Your task to perform on an android device: turn on translation in the chrome app Image 0: 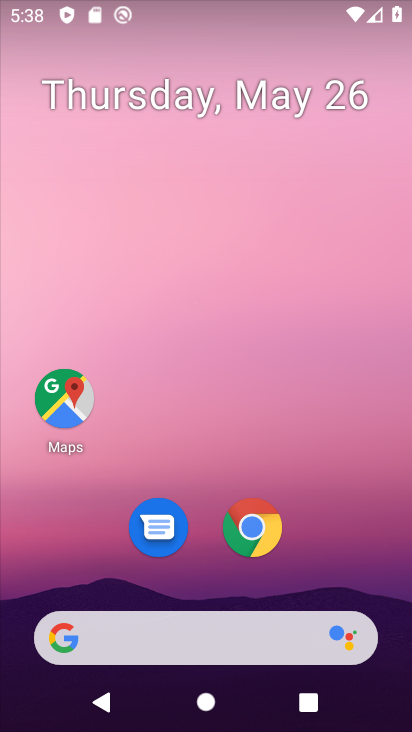
Step 0: click (210, 165)
Your task to perform on an android device: turn on translation in the chrome app Image 1: 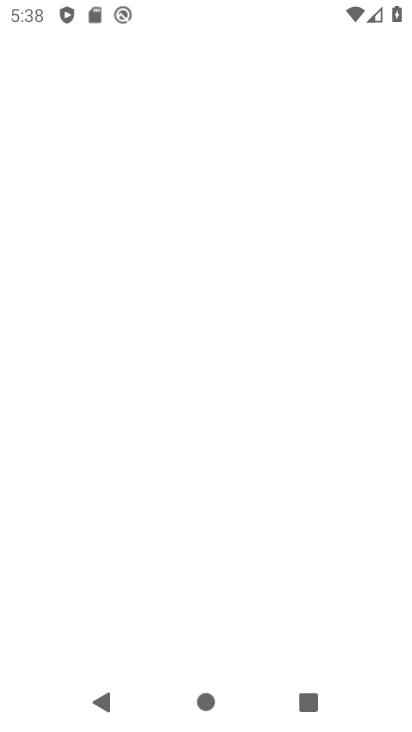
Step 1: press home button
Your task to perform on an android device: turn on translation in the chrome app Image 2: 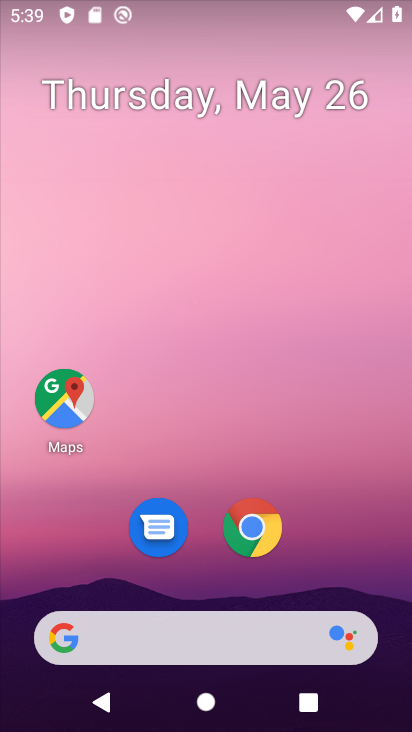
Step 2: click (264, 524)
Your task to perform on an android device: turn on translation in the chrome app Image 3: 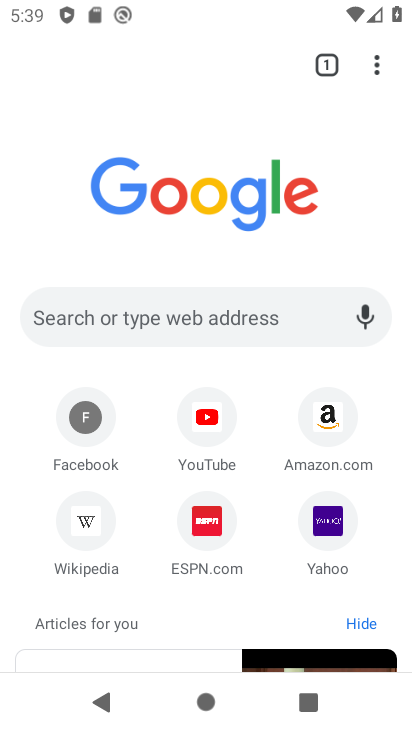
Step 3: click (383, 63)
Your task to perform on an android device: turn on translation in the chrome app Image 4: 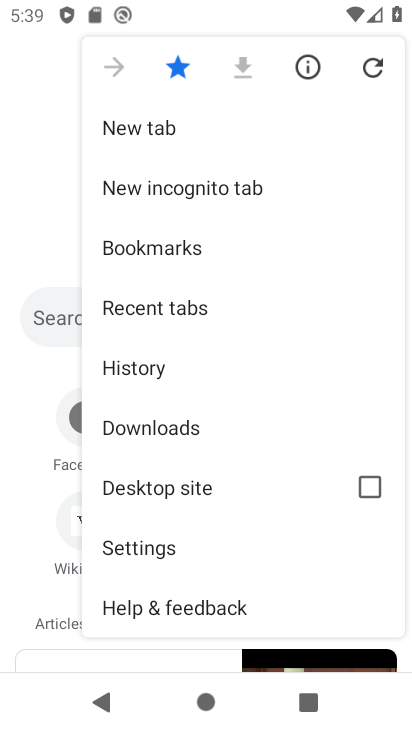
Step 4: click (165, 547)
Your task to perform on an android device: turn on translation in the chrome app Image 5: 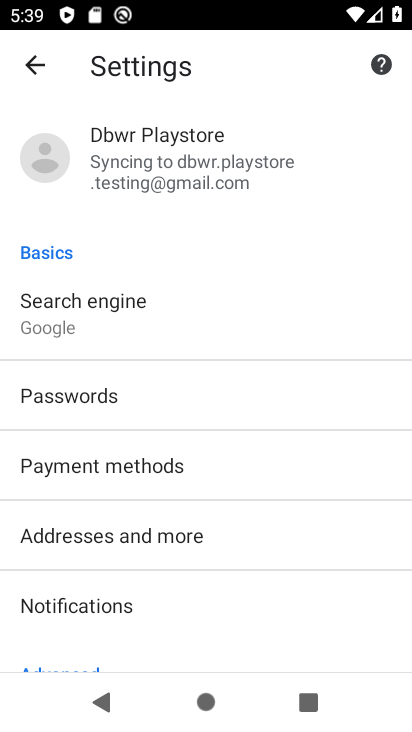
Step 5: drag from (46, 636) to (131, 269)
Your task to perform on an android device: turn on translation in the chrome app Image 6: 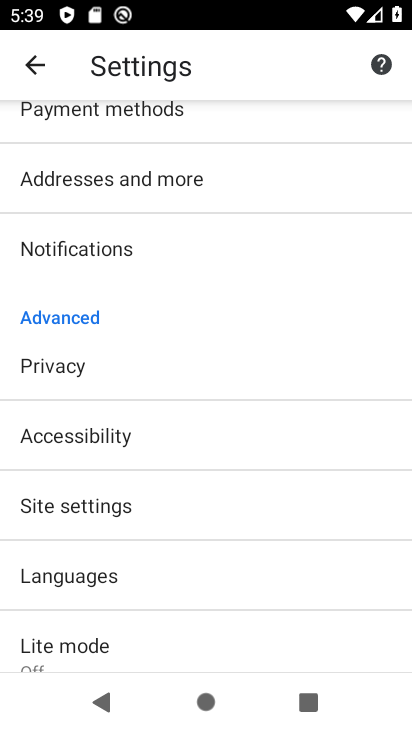
Step 6: click (69, 575)
Your task to perform on an android device: turn on translation in the chrome app Image 7: 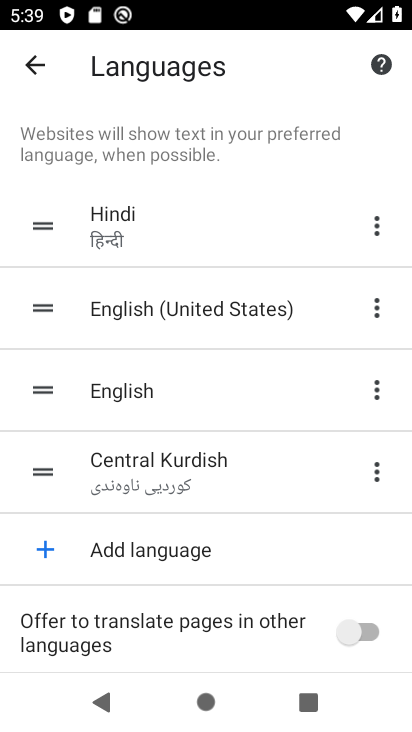
Step 7: click (361, 625)
Your task to perform on an android device: turn on translation in the chrome app Image 8: 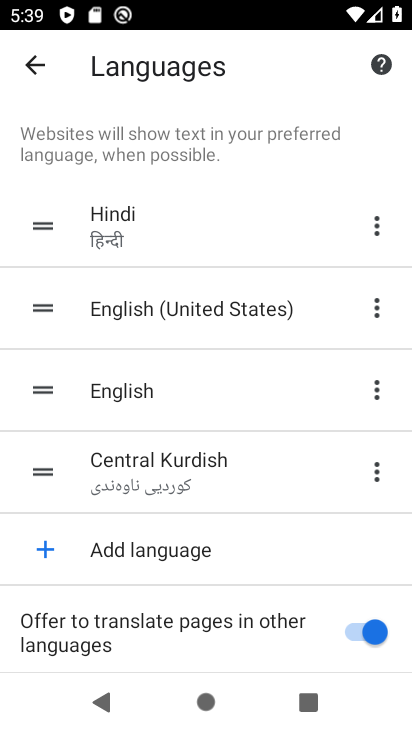
Step 8: task complete